Your task to perform on an android device: toggle priority inbox in the gmail app Image 0: 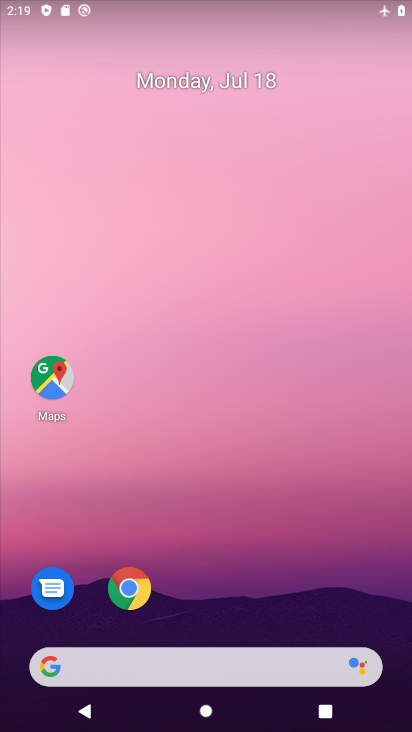
Step 0: drag from (280, 577) to (274, 30)
Your task to perform on an android device: toggle priority inbox in the gmail app Image 1: 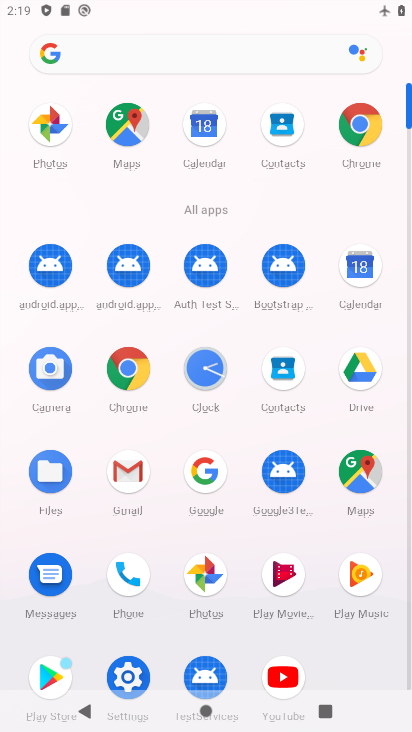
Step 1: click (137, 472)
Your task to perform on an android device: toggle priority inbox in the gmail app Image 2: 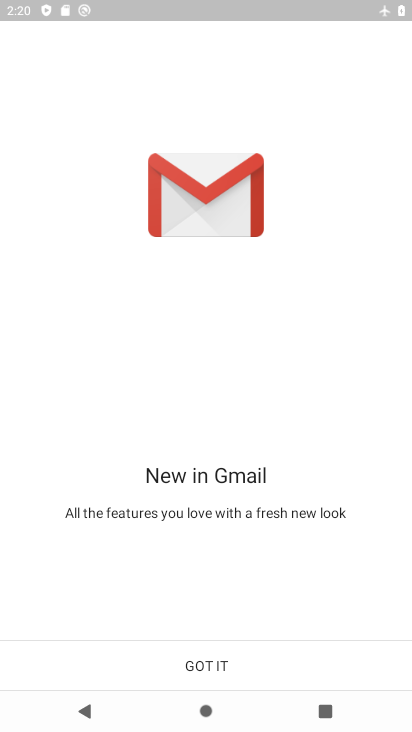
Step 2: click (204, 671)
Your task to perform on an android device: toggle priority inbox in the gmail app Image 3: 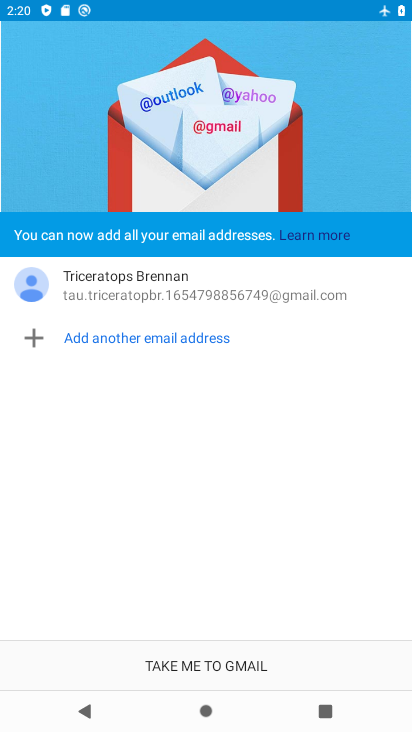
Step 3: click (189, 664)
Your task to perform on an android device: toggle priority inbox in the gmail app Image 4: 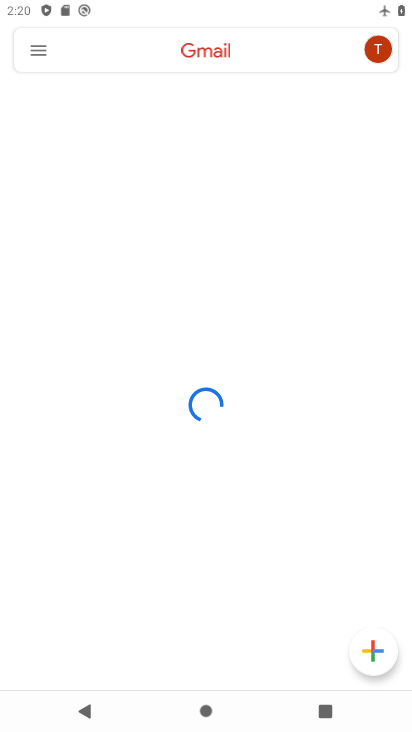
Step 4: click (44, 40)
Your task to perform on an android device: toggle priority inbox in the gmail app Image 5: 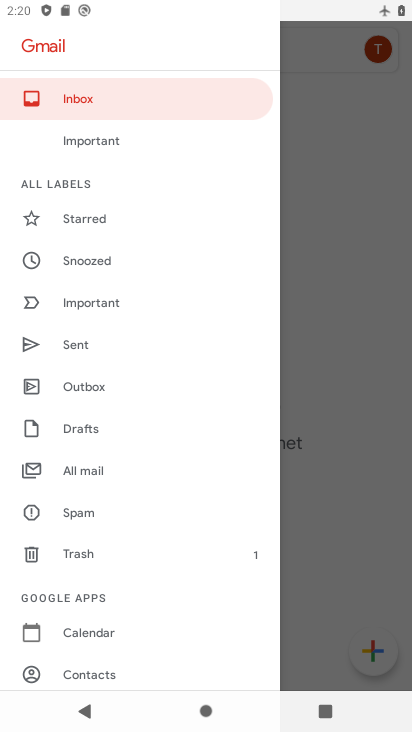
Step 5: drag from (100, 630) to (143, 114)
Your task to perform on an android device: toggle priority inbox in the gmail app Image 6: 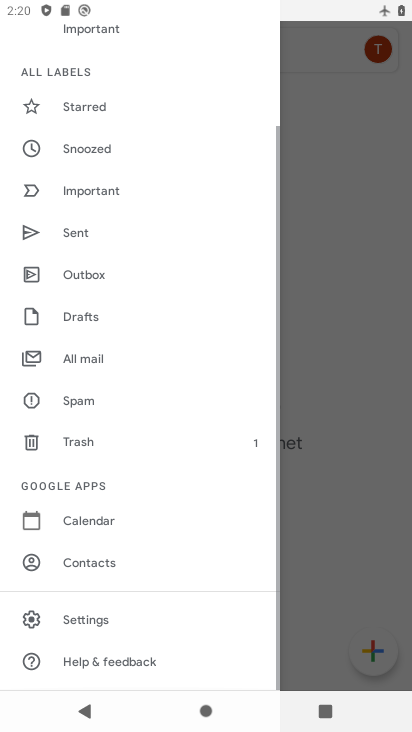
Step 6: click (90, 620)
Your task to perform on an android device: toggle priority inbox in the gmail app Image 7: 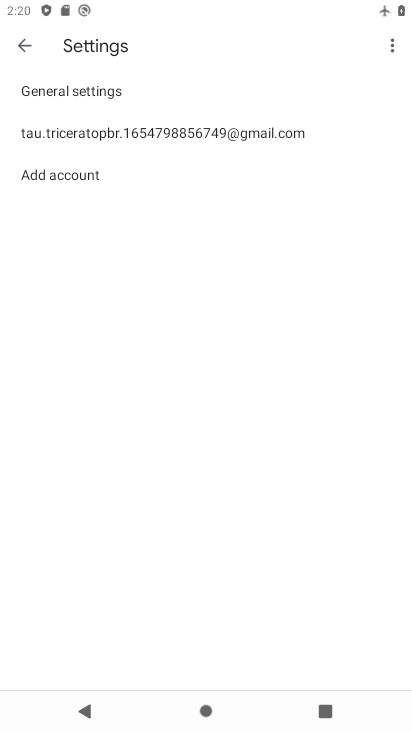
Step 7: click (114, 132)
Your task to perform on an android device: toggle priority inbox in the gmail app Image 8: 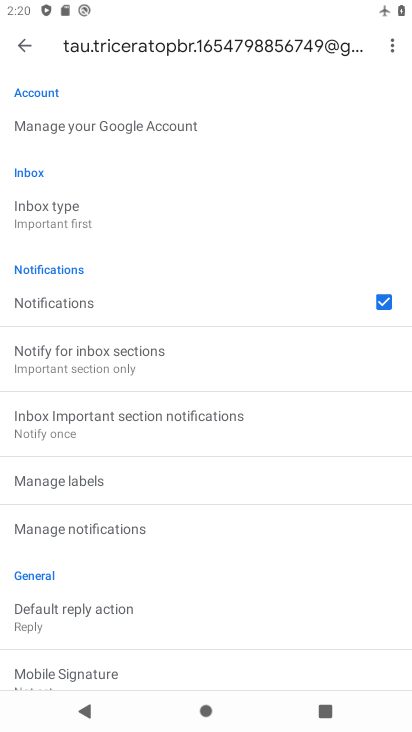
Step 8: click (92, 222)
Your task to perform on an android device: toggle priority inbox in the gmail app Image 9: 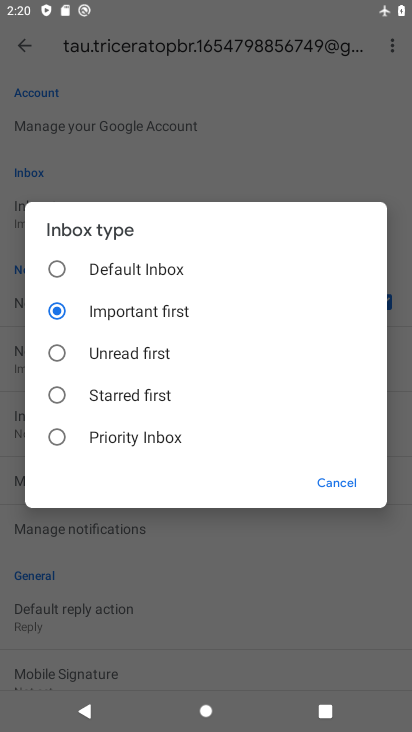
Step 9: click (49, 423)
Your task to perform on an android device: toggle priority inbox in the gmail app Image 10: 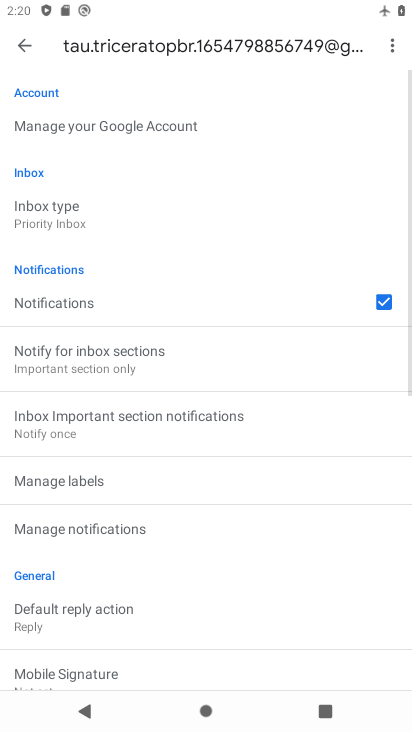
Step 10: task complete